Your task to perform on an android device: When is my next appointment? Image 0: 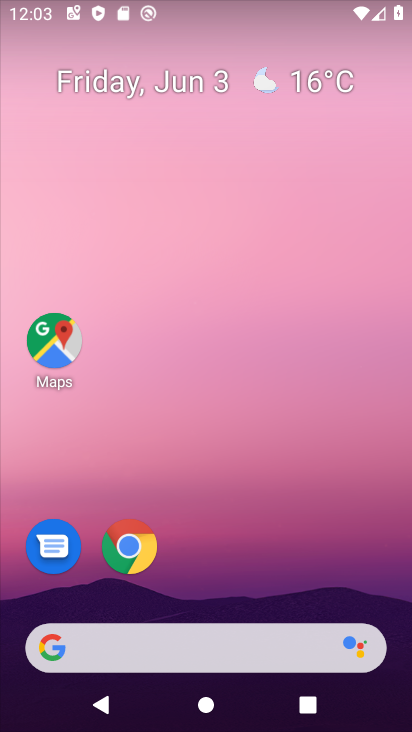
Step 0: drag from (228, 573) to (168, 79)
Your task to perform on an android device: When is my next appointment? Image 1: 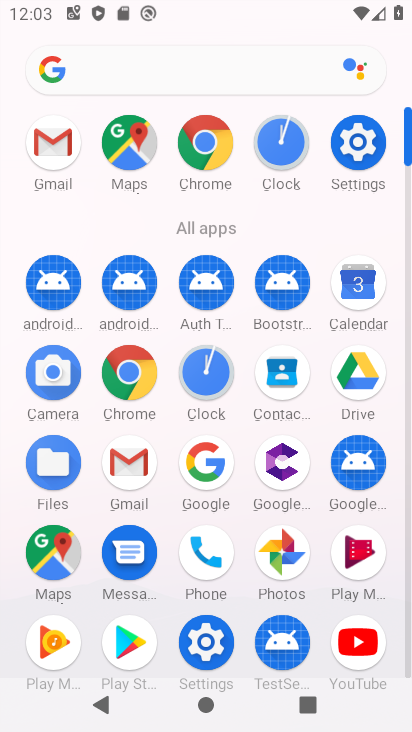
Step 1: click (363, 281)
Your task to perform on an android device: When is my next appointment? Image 2: 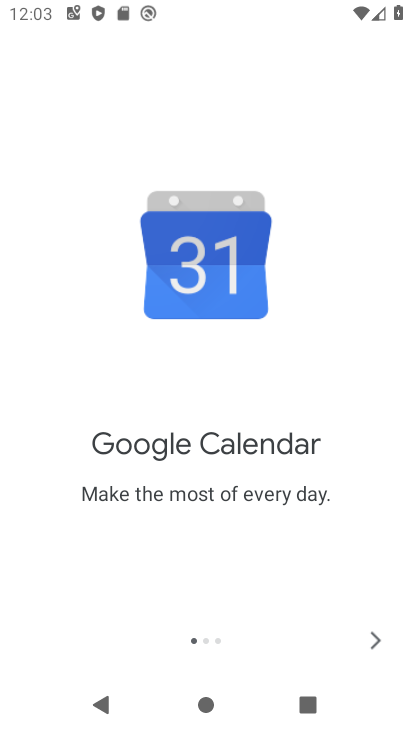
Step 2: click (373, 638)
Your task to perform on an android device: When is my next appointment? Image 3: 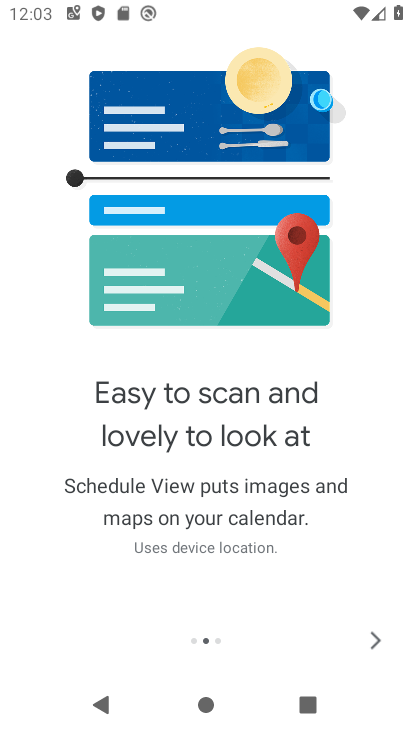
Step 3: click (373, 638)
Your task to perform on an android device: When is my next appointment? Image 4: 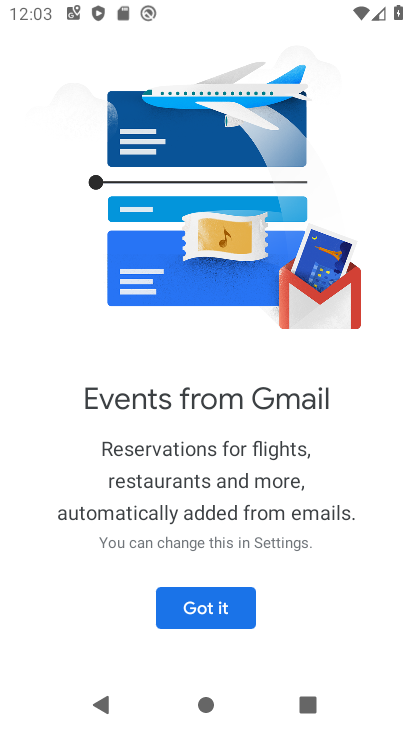
Step 4: click (223, 607)
Your task to perform on an android device: When is my next appointment? Image 5: 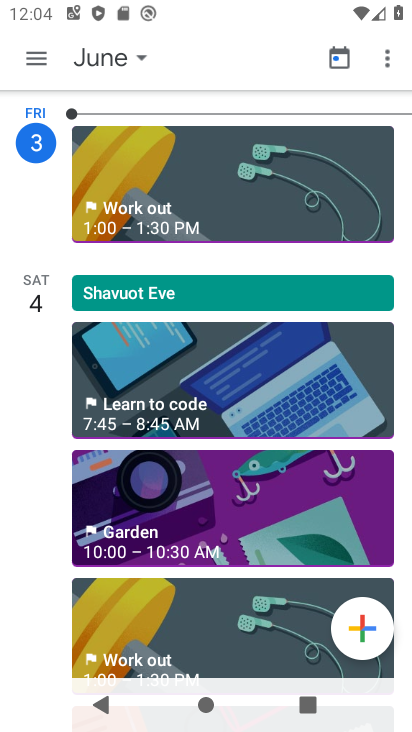
Step 5: click (137, 52)
Your task to perform on an android device: When is my next appointment? Image 6: 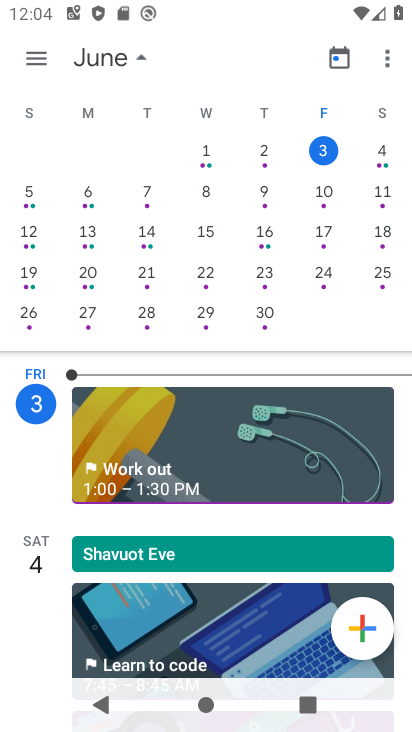
Step 6: click (337, 154)
Your task to perform on an android device: When is my next appointment? Image 7: 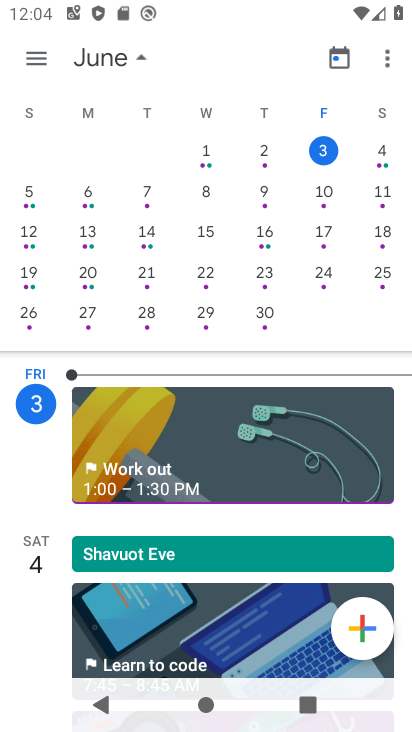
Step 7: click (34, 55)
Your task to perform on an android device: When is my next appointment? Image 8: 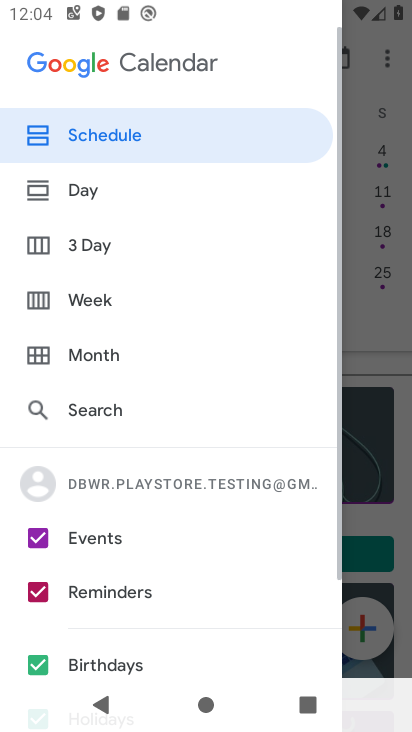
Step 8: click (80, 181)
Your task to perform on an android device: When is my next appointment? Image 9: 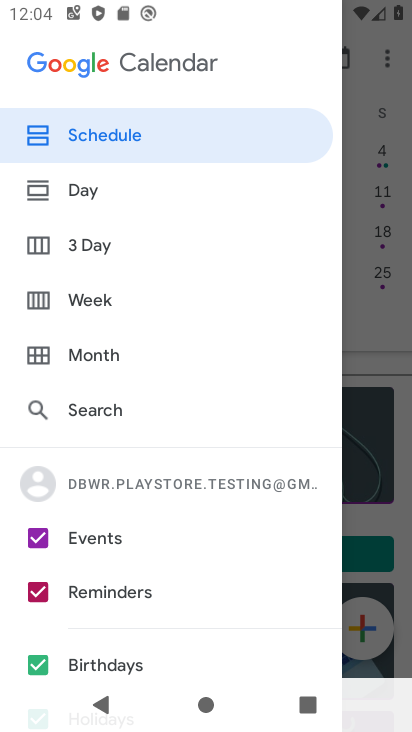
Step 9: click (74, 192)
Your task to perform on an android device: When is my next appointment? Image 10: 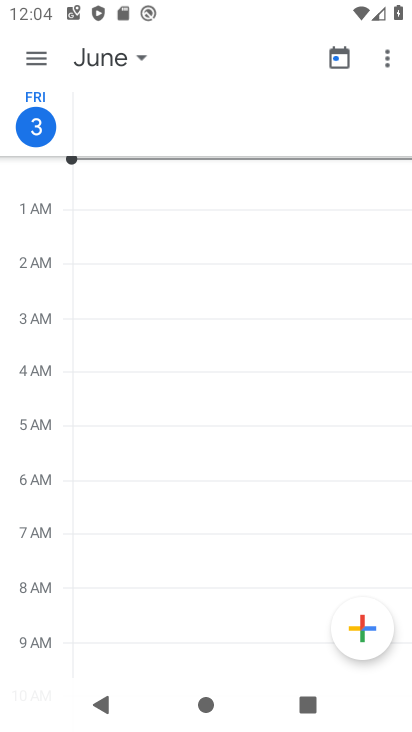
Step 10: task complete